Your task to perform on an android device: turn smart compose on in the gmail app Image 0: 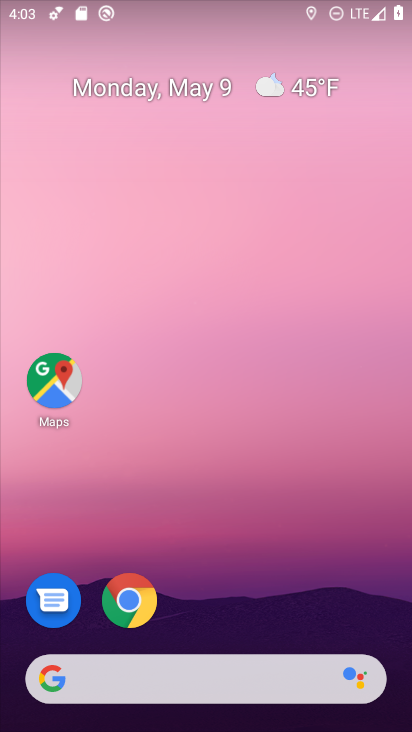
Step 0: drag from (221, 637) to (349, 94)
Your task to perform on an android device: turn smart compose on in the gmail app Image 1: 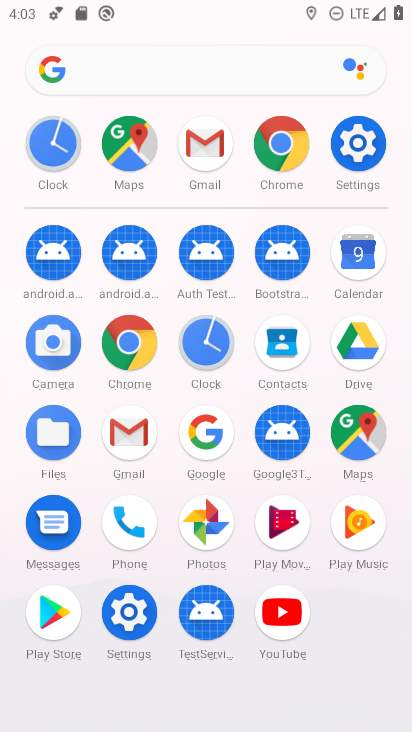
Step 1: click (127, 433)
Your task to perform on an android device: turn smart compose on in the gmail app Image 2: 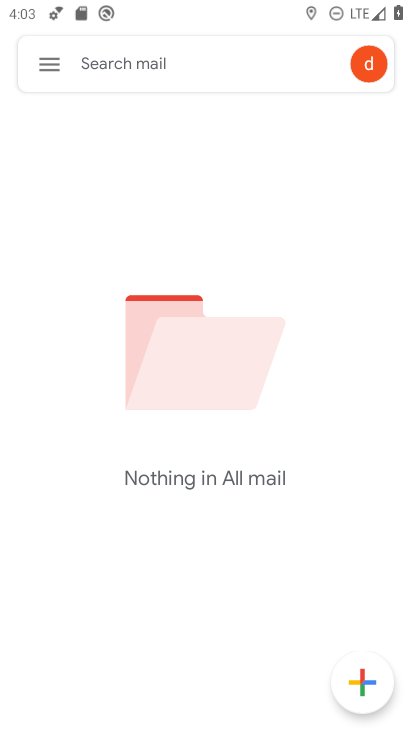
Step 2: click (64, 71)
Your task to perform on an android device: turn smart compose on in the gmail app Image 3: 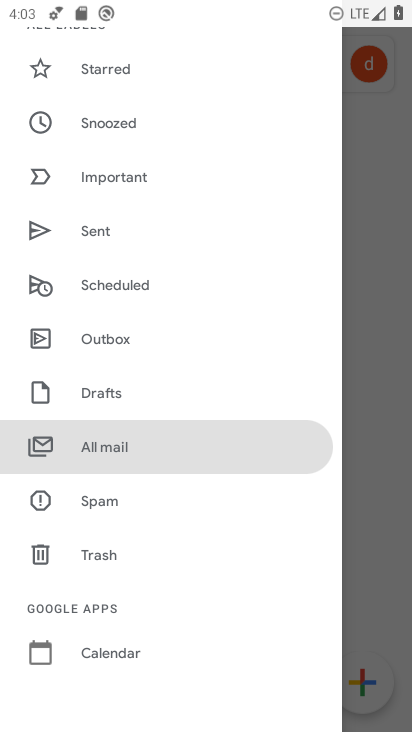
Step 3: drag from (125, 630) to (194, 162)
Your task to perform on an android device: turn smart compose on in the gmail app Image 4: 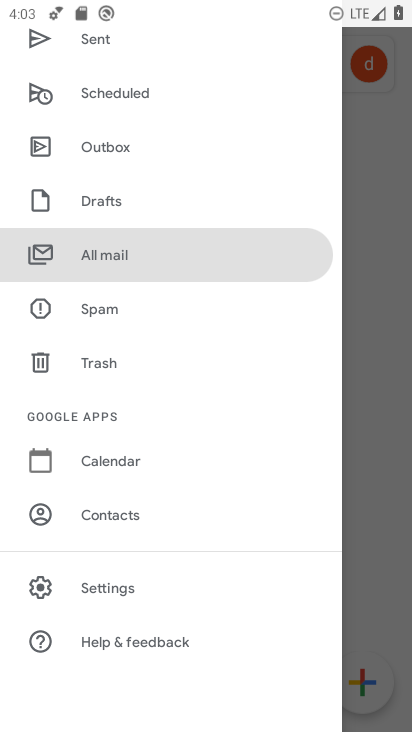
Step 4: click (121, 593)
Your task to perform on an android device: turn smart compose on in the gmail app Image 5: 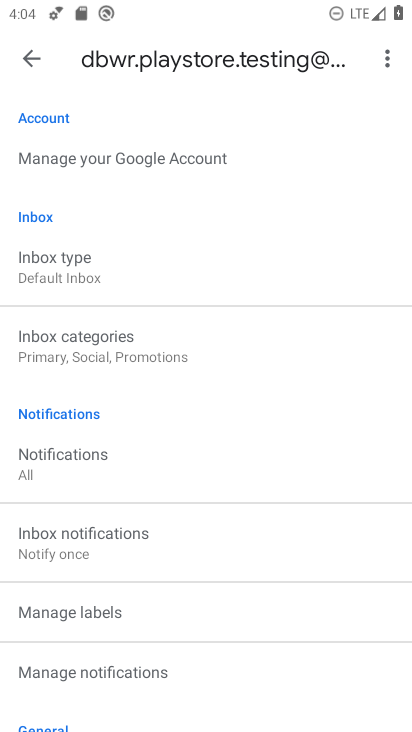
Step 5: task complete